Your task to perform on an android device: turn off notifications settings in the gmail app Image 0: 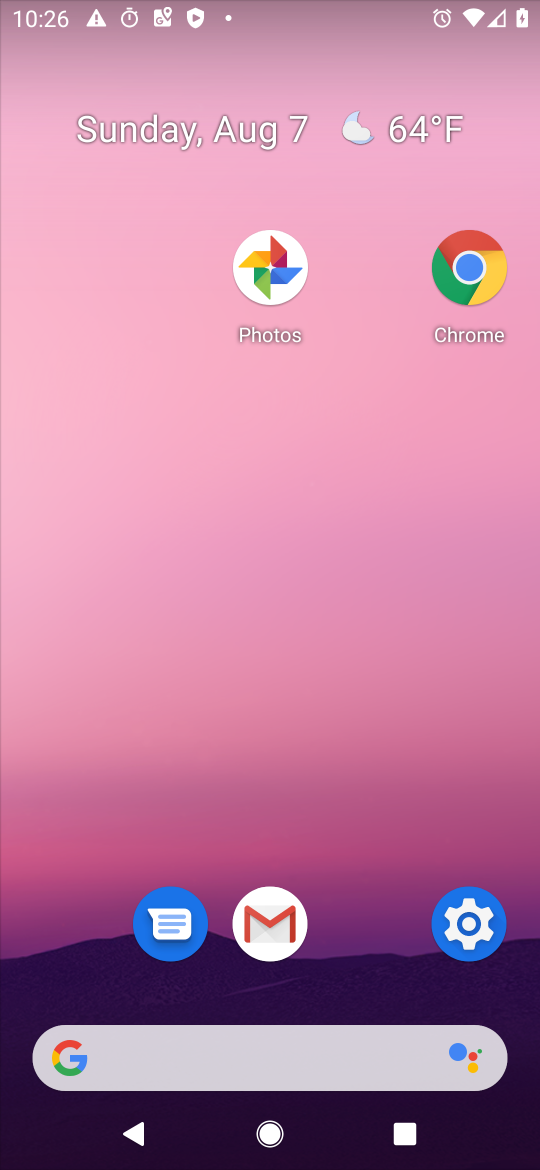
Step 0: press home button
Your task to perform on an android device: turn off notifications settings in the gmail app Image 1: 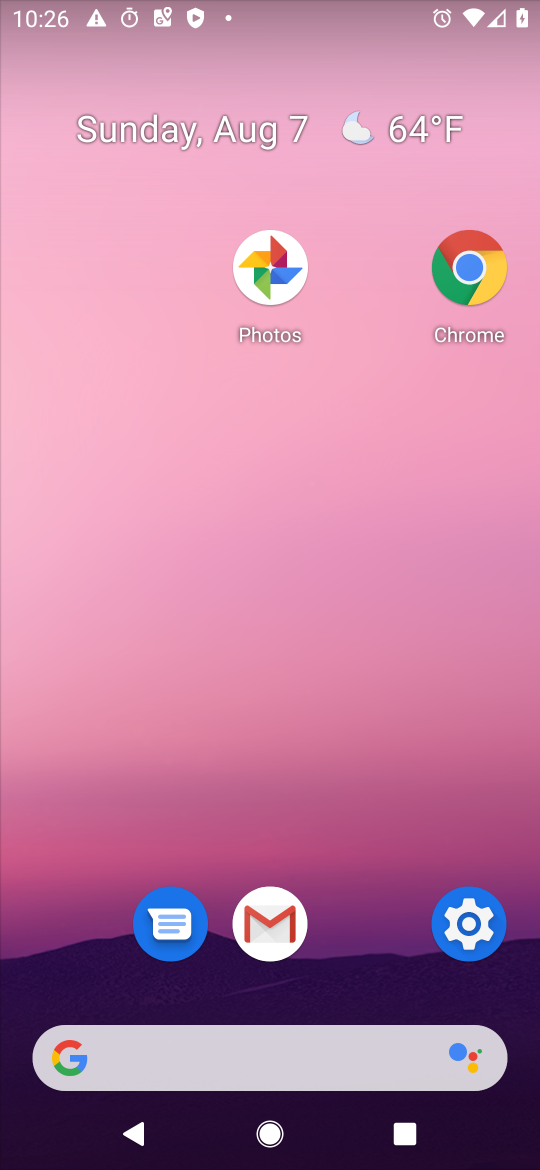
Step 1: click (262, 938)
Your task to perform on an android device: turn off notifications settings in the gmail app Image 2: 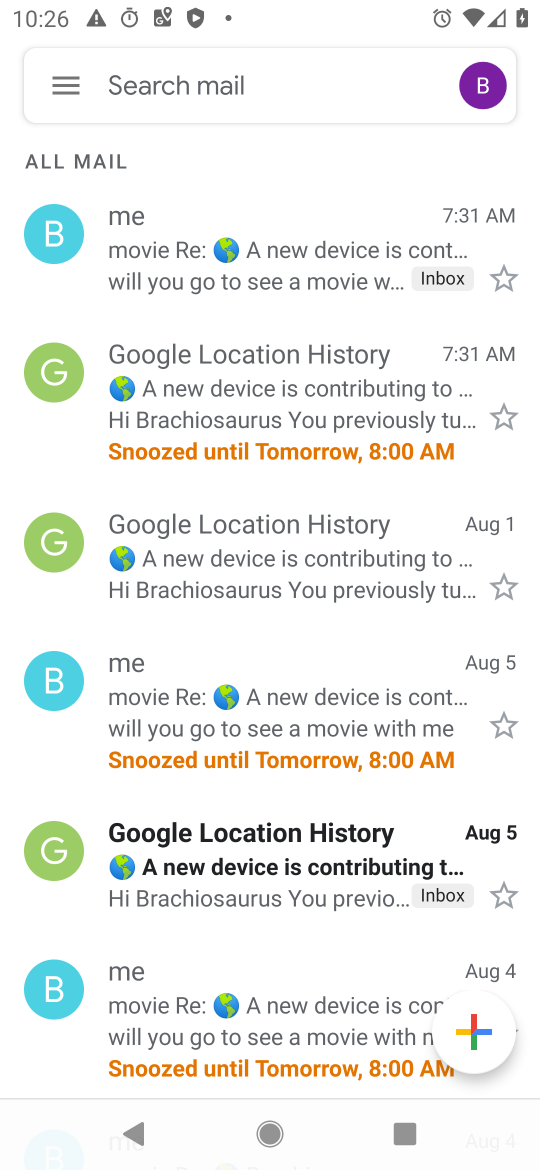
Step 2: click (72, 99)
Your task to perform on an android device: turn off notifications settings in the gmail app Image 3: 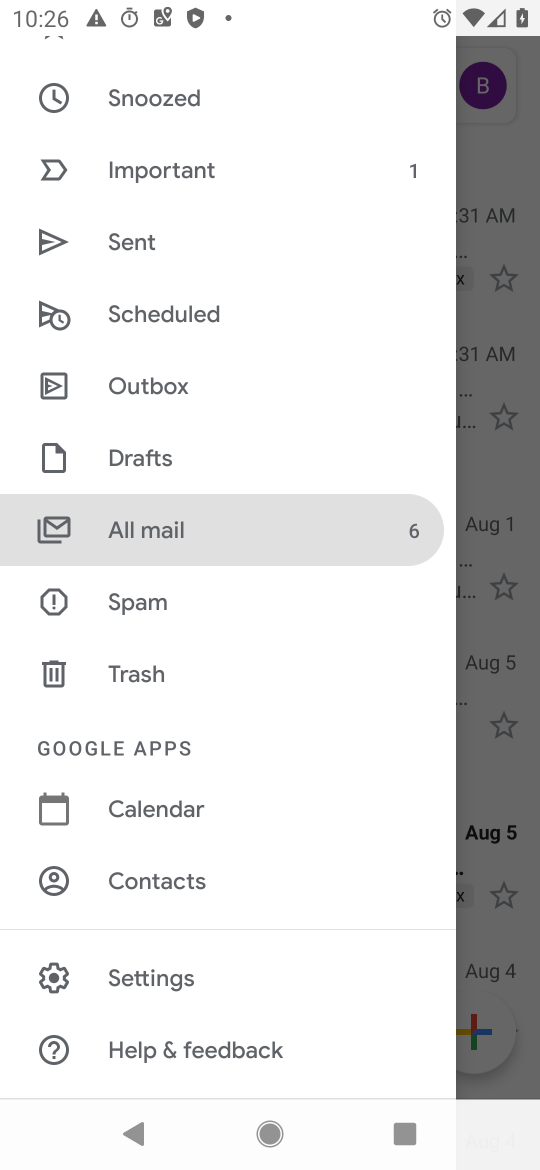
Step 3: click (156, 976)
Your task to perform on an android device: turn off notifications settings in the gmail app Image 4: 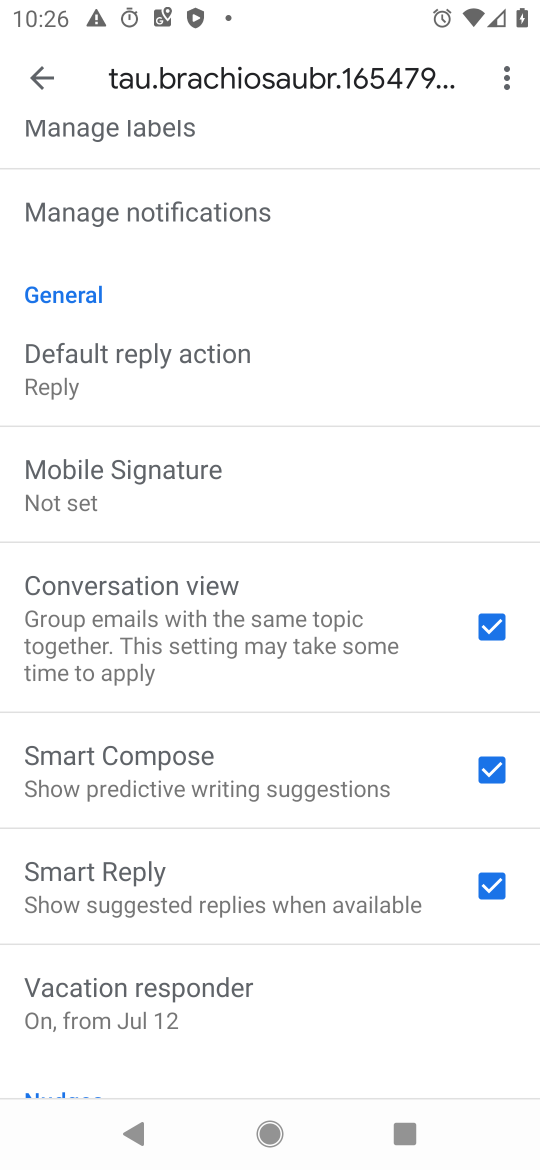
Step 4: drag from (157, 283) to (100, 621)
Your task to perform on an android device: turn off notifications settings in the gmail app Image 5: 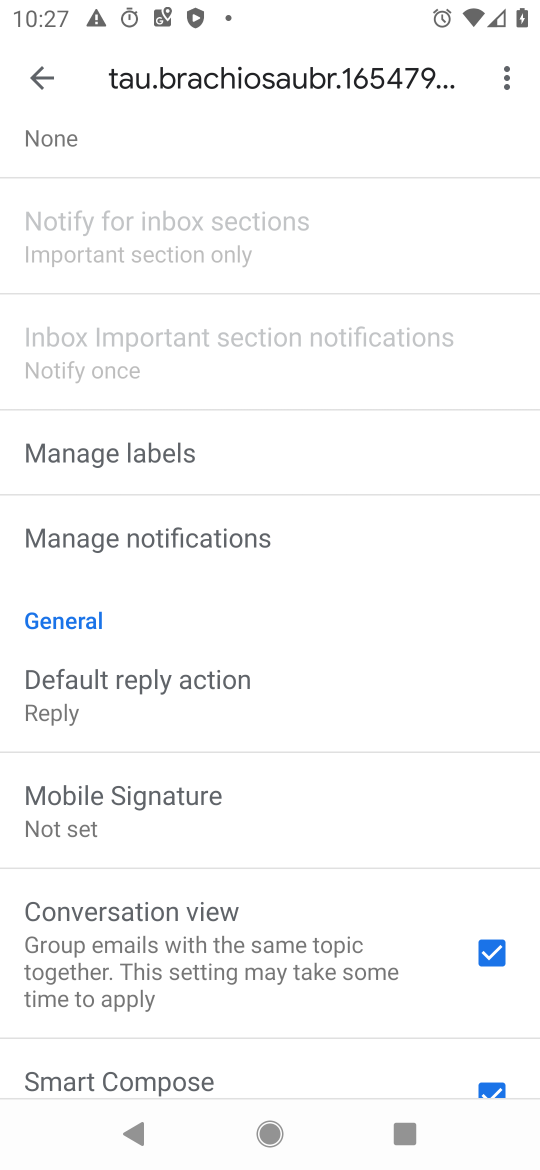
Step 5: drag from (149, 368) to (126, 549)
Your task to perform on an android device: turn off notifications settings in the gmail app Image 6: 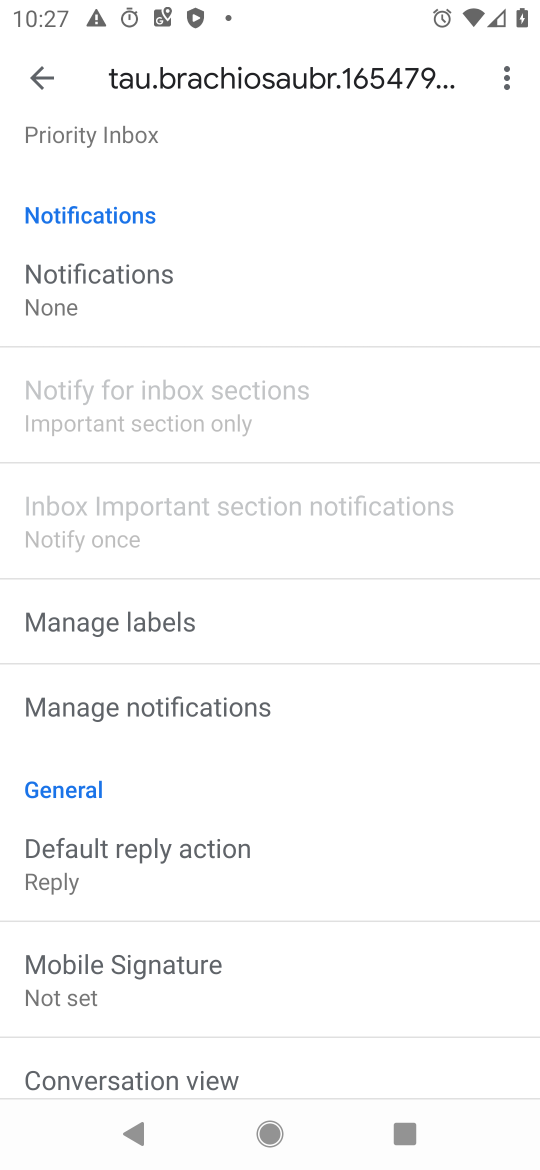
Step 6: click (127, 297)
Your task to perform on an android device: turn off notifications settings in the gmail app Image 7: 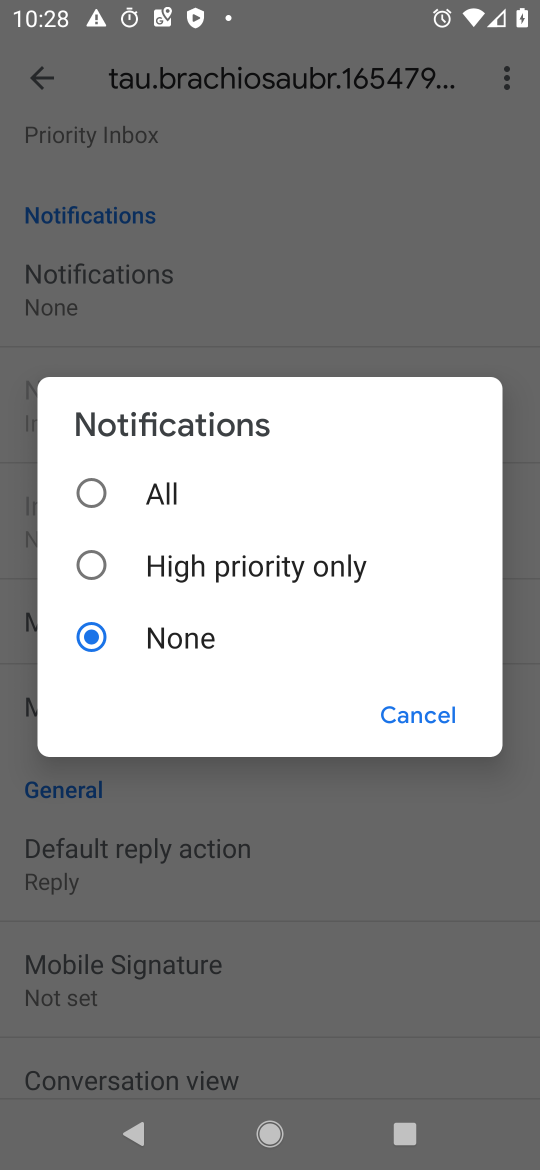
Step 7: task complete